Your task to perform on an android device: Is it going to rain today? Image 0: 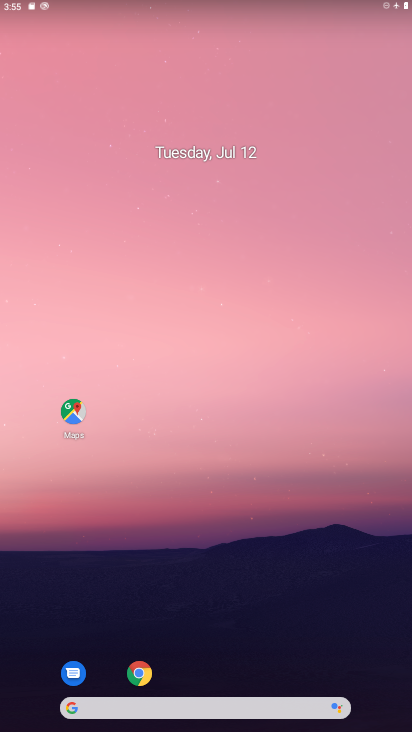
Step 0: drag from (221, 707) to (290, 147)
Your task to perform on an android device: Is it going to rain today? Image 1: 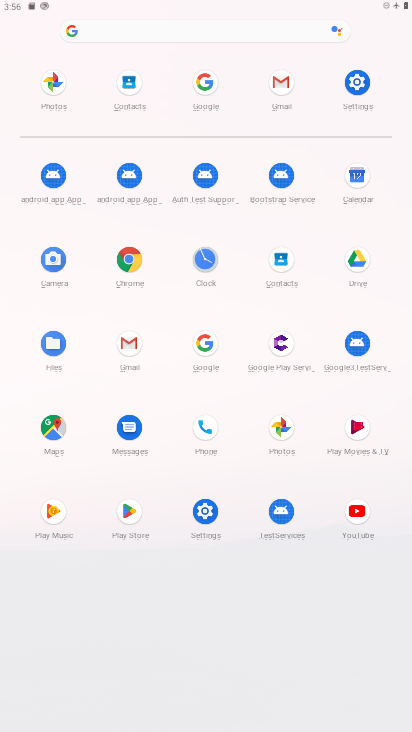
Step 1: click (202, 81)
Your task to perform on an android device: Is it going to rain today? Image 2: 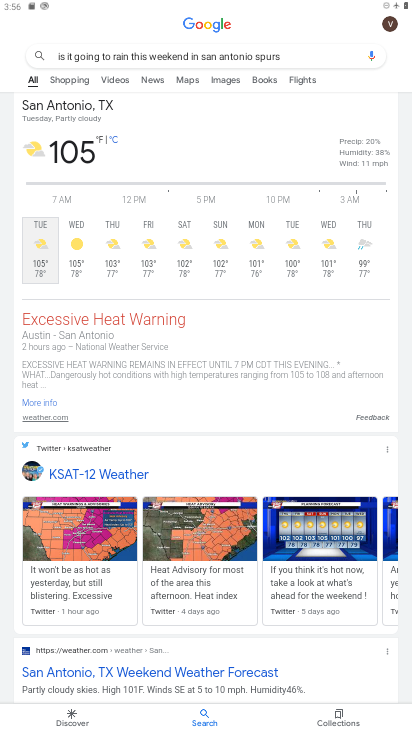
Step 2: click (327, 57)
Your task to perform on an android device: Is it going to rain today? Image 3: 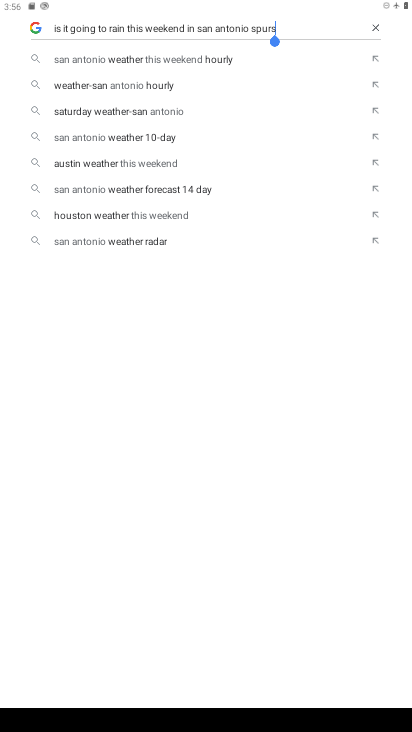
Step 3: click (373, 26)
Your task to perform on an android device: Is it going to rain today? Image 4: 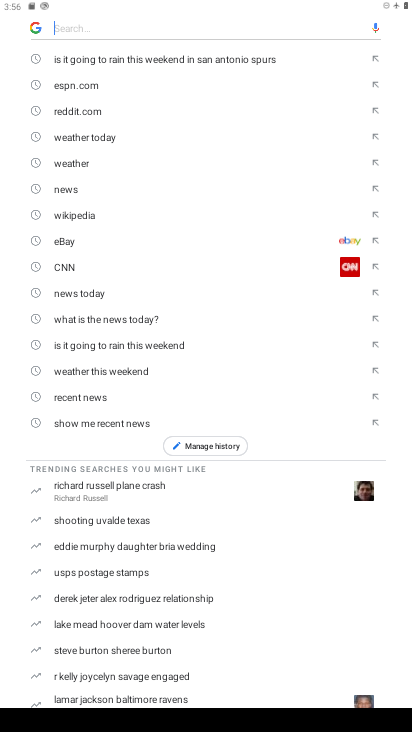
Step 4: type "Is it going to rain today?"
Your task to perform on an android device: Is it going to rain today? Image 5: 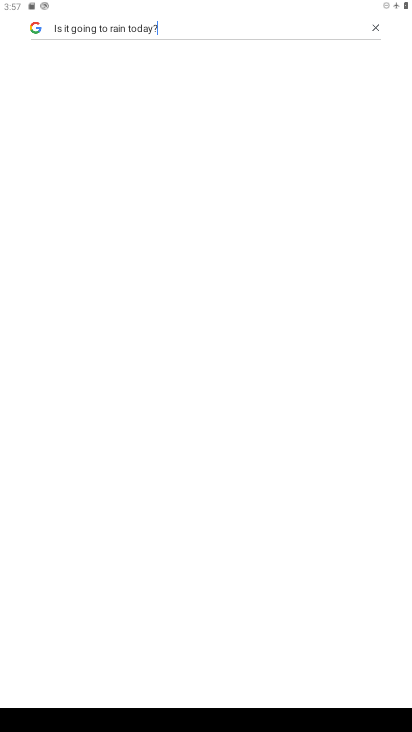
Step 5: task complete